Your task to perform on an android device: clear history in the chrome app Image 0: 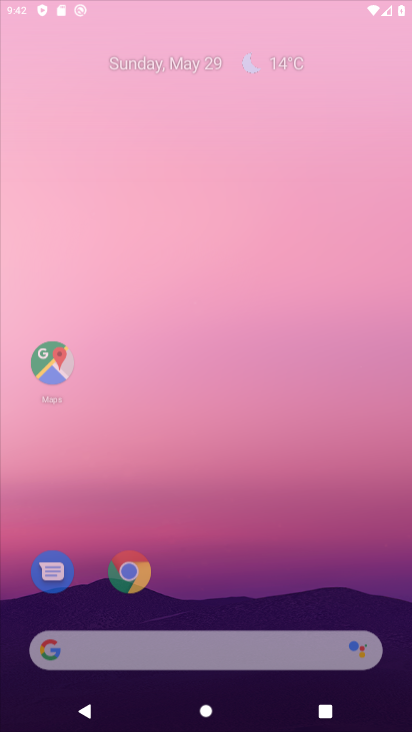
Step 0: click (224, 173)
Your task to perform on an android device: clear history in the chrome app Image 1: 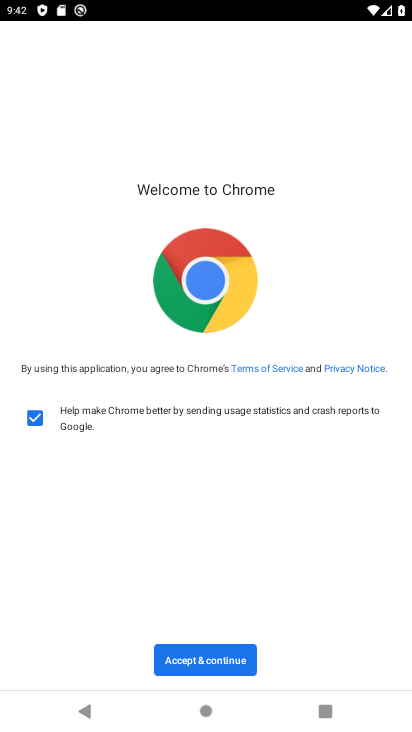
Step 1: click (206, 659)
Your task to perform on an android device: clear history in the chrome app Image 2: 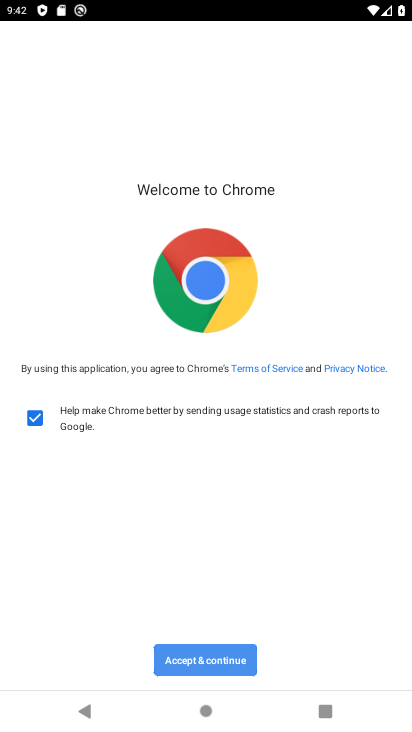
Step 2: click (209, 660)
Your task to perform on an android device: clear history in the chrome app Image 3: 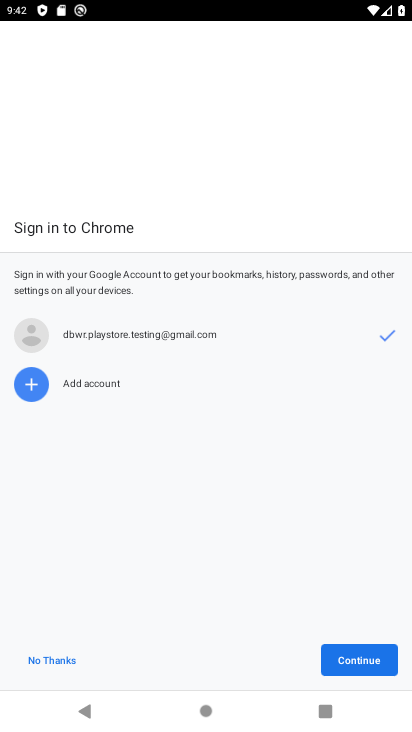
Step 3: click (209, 660)
Your task to perform on an android device: clear history in the chrome app Image 4: 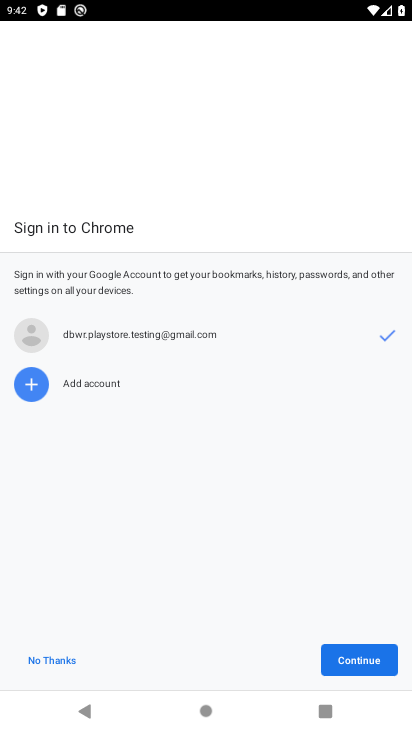
Step 4: click (210, 662)
Your task to perform on an android device: clear history in the chrome app Image 5: 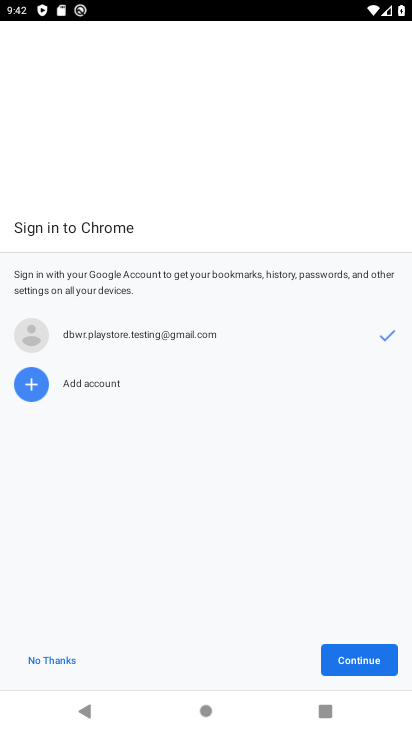
Step 5: click (206, 665)
Your task to perform on an android device: clear history in the chrome app Image 6: 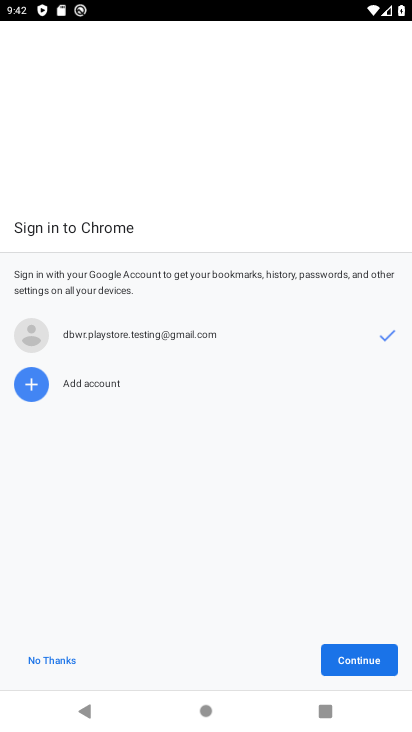
Step 6: click (341, 664)
Your task to perform on an android device: clear history in the chrome app Image 7: 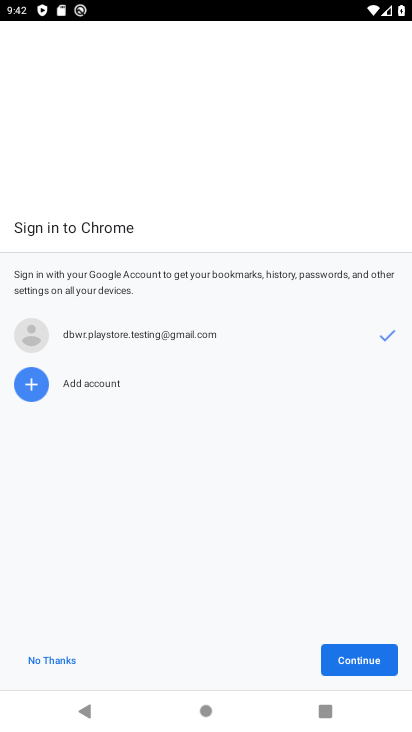
Step 7: click (344, 663)
Your task to perform on an android device: clear history in the chrome app Image 8: 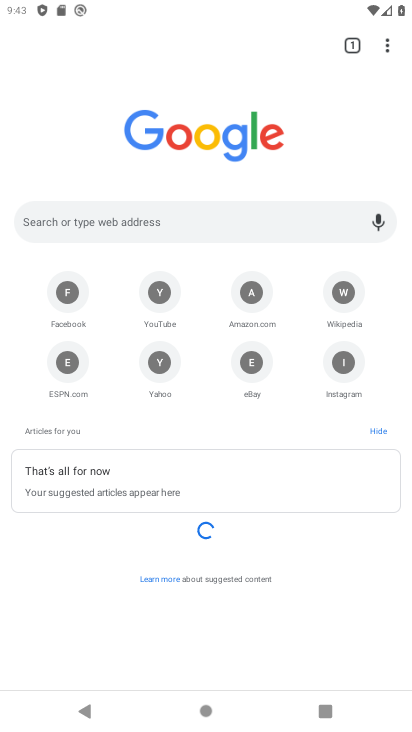
Step 8: drag from (384, 50) to (212, 263)
Your task to perform on an android device: clear history in the chrome app Image 9: 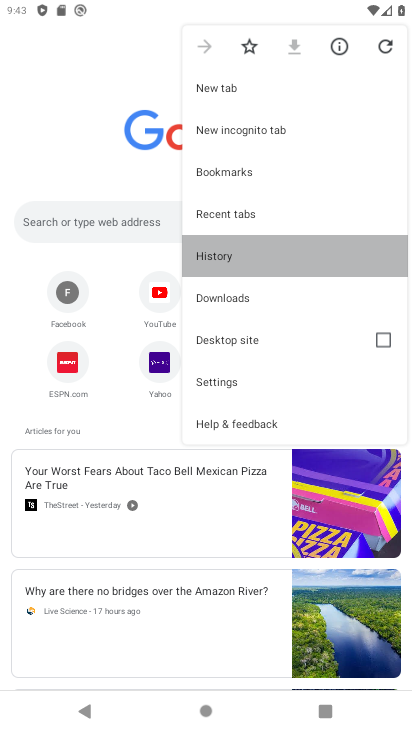
Step 9: click (212, 263)
Your task to perform on an android device: clear history in the chrome app Image 10: 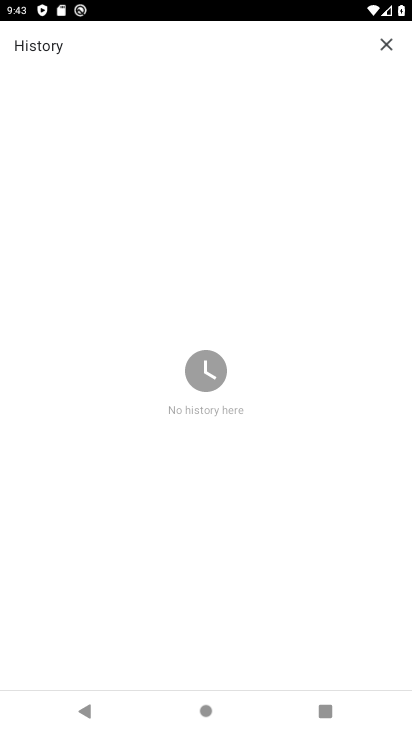
Step 10: task complete